Your task to perform on an android device: turn on data saver in the chrome app Image 0: 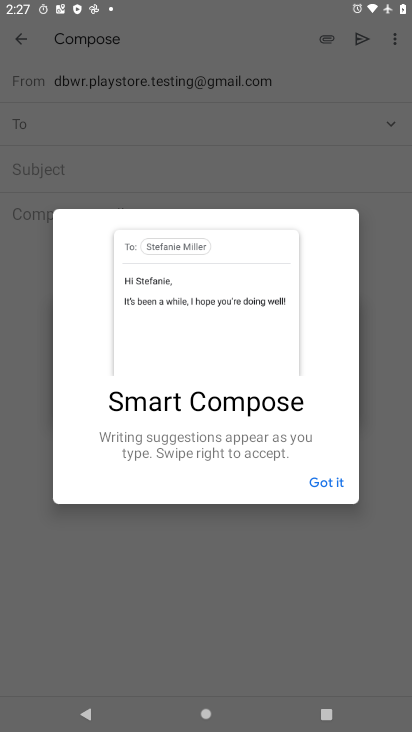
Step 0: press home button
Your task to perform on an android device: turn on data saver in the chrome app Image 1: 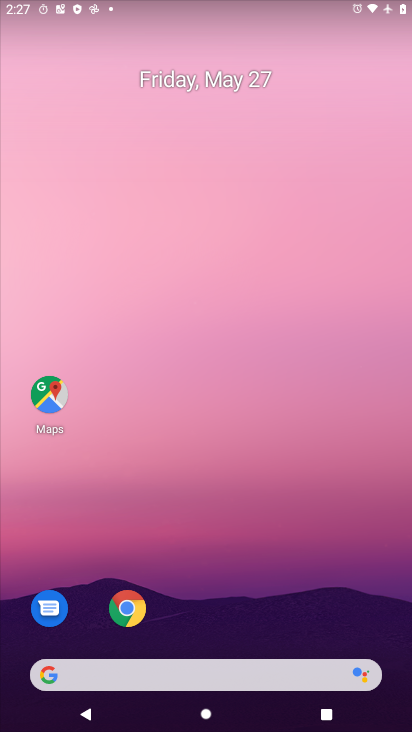
Step 1: click (120, 616)
Your task to perform on an android device: turn on data saver in the chrome app Image 2: 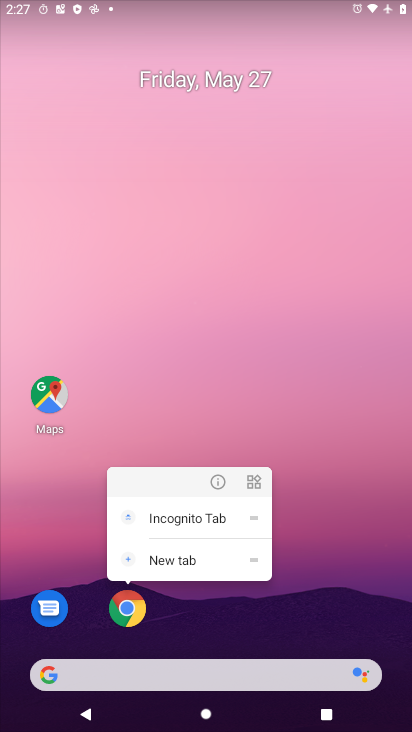
Step 2: click (124, 611)
Your task to perform on an android device: turn on data saver in the chrome app Image 3: 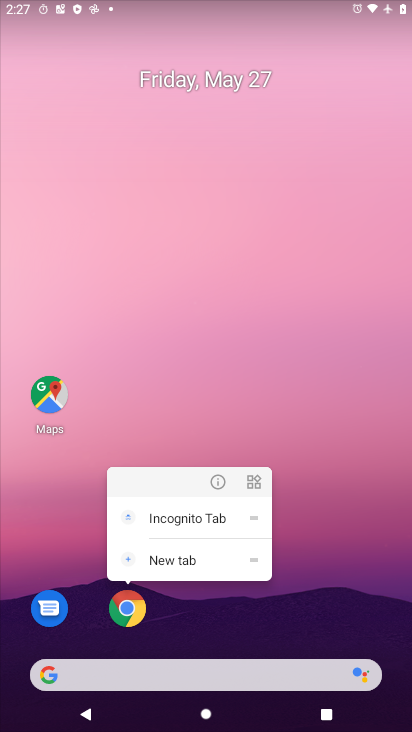
Step 3: click (129, 612)
Your task to perform on an android device: turn on data saver in the chrome app Image 4: 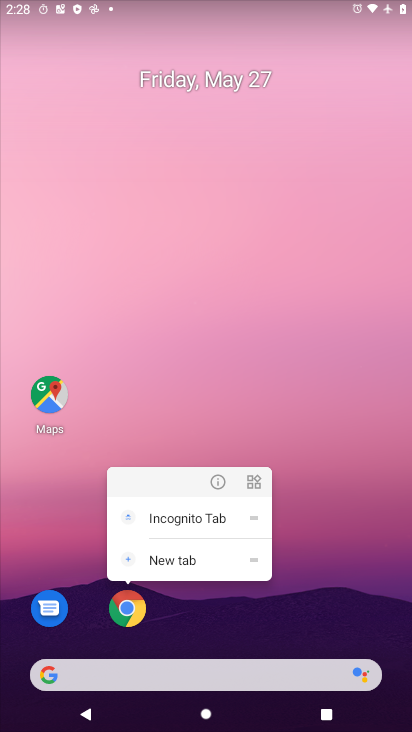
Step 4: click (125, 620)
Your task to perform on an android device: turn on data saver in the chrome app Image 5: 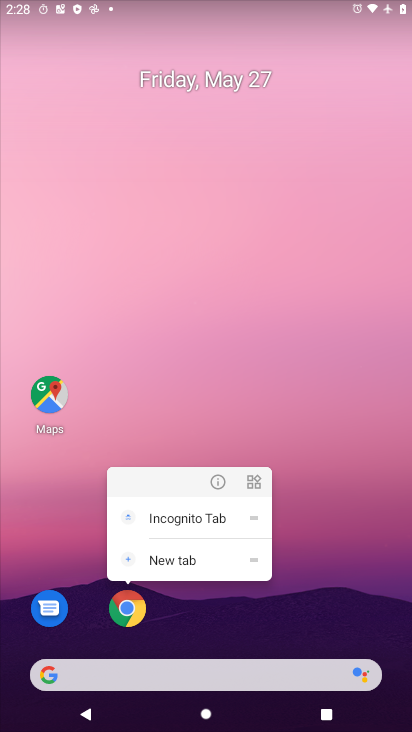
Step 5: click (124, 622)
Your task to perform on an android device: turn on data saver in the chrome app Image 6: 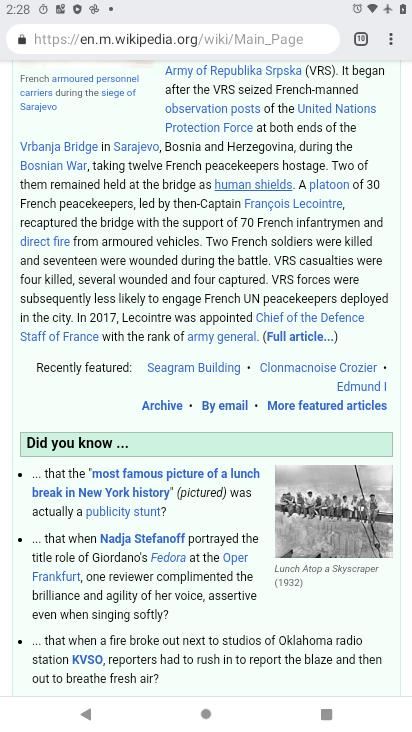
Step 6: drag from (390, 42) to (308, 461)
Your task to perform on an android device: turn on data saver in the chrome app Image 7: 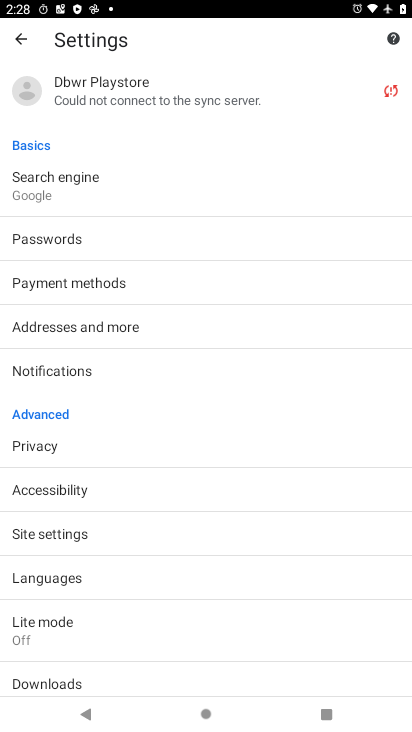
Step 7: click (77, 622)
Your task to perform on an android device: turn on data saver in the chrome app Image 8: 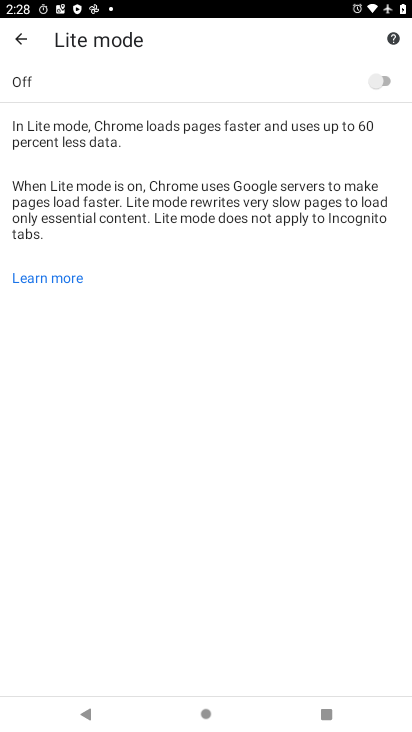
Step 8: click (383, 82)
Your task to perform on an android device: turn on data saver in the chrome app Image 9: 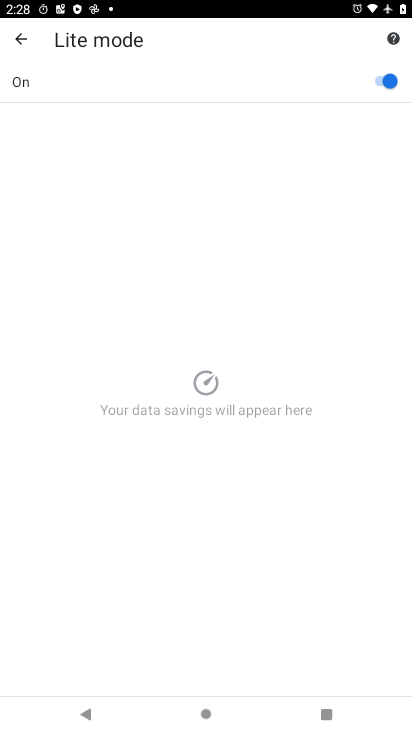
Step 9: task complete